Your task to perform on an android device: turn off smart reply in the gmail app Image 0: 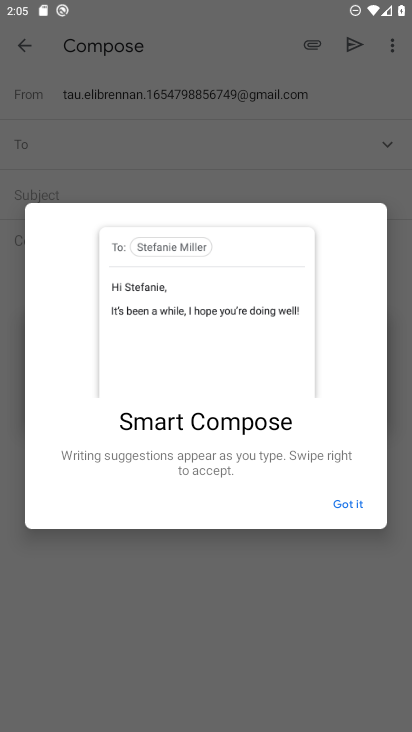
Step 0: press home button
Your task to perform on an android device: turn off smart reply in the gmail app Image 1: 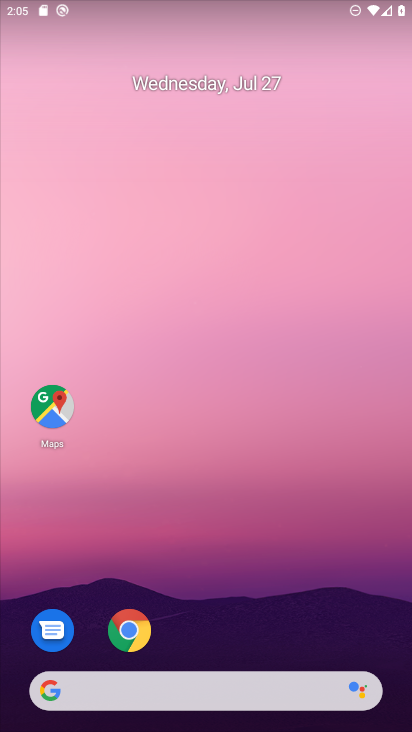
Step 1: drag from (353, 637) to (312, 76)
Your task to perform on an android device: turn off smart reply in the gmail app Image 2: 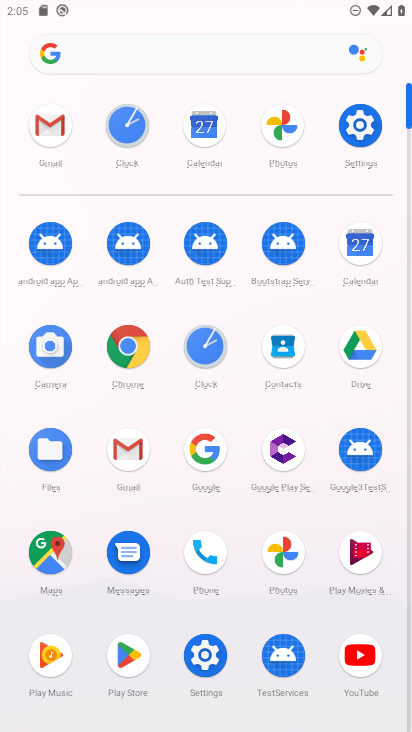
Step 2: click (127, 452)
Your task to perform on an android device: turn off smart reply in the gmail app Image 3: 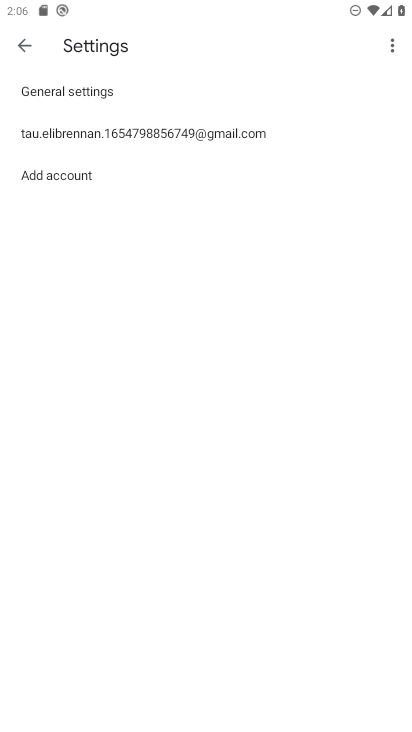
Step 3: click (112, 136)
Your task to perform on an android device: turn off smart reply in the gmail app Image 4: 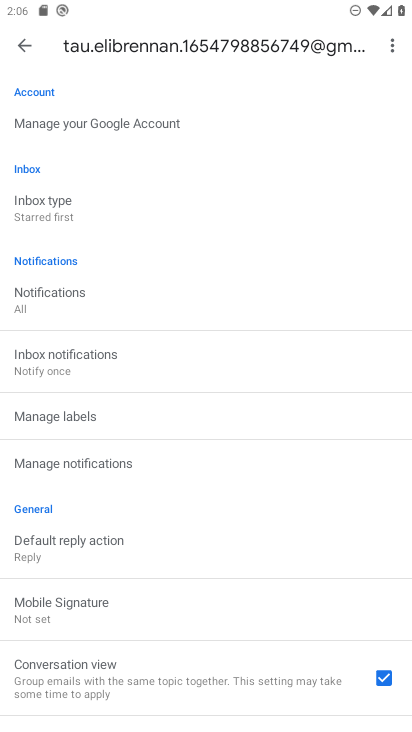
Step 4: task complete